Your task to perform on an android device: What's on my calendar tomorrow? Image 0: 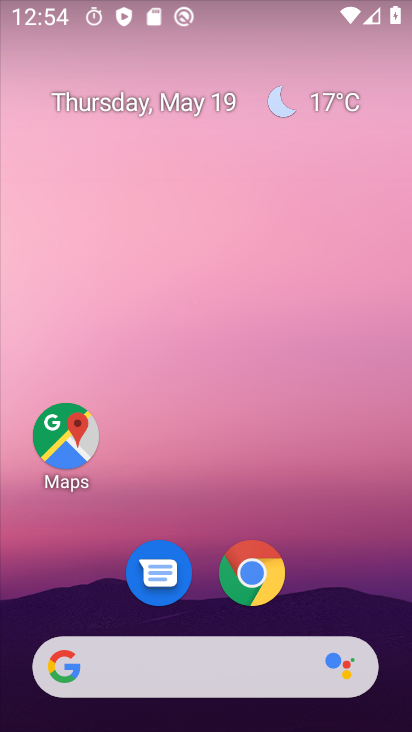
Step 0: drag from (191, 591) to (257, 113)
Your task to perform on an android device: What's on my calendar tomorrow? Image 1: 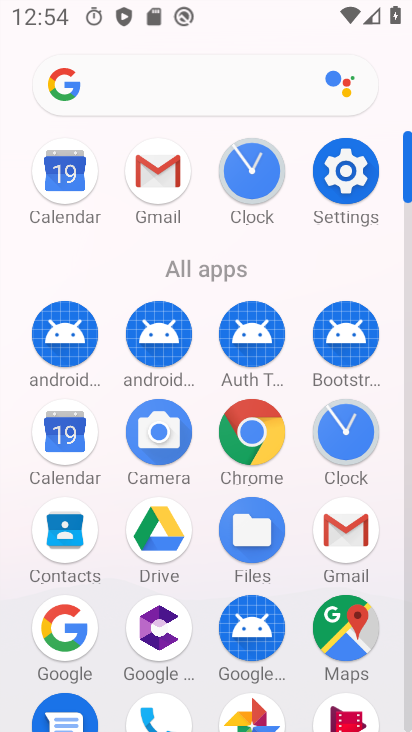
Step 1: click (58, 187)
Your task to perform on an android device: What's on my calendar tomorrow? Image 2: 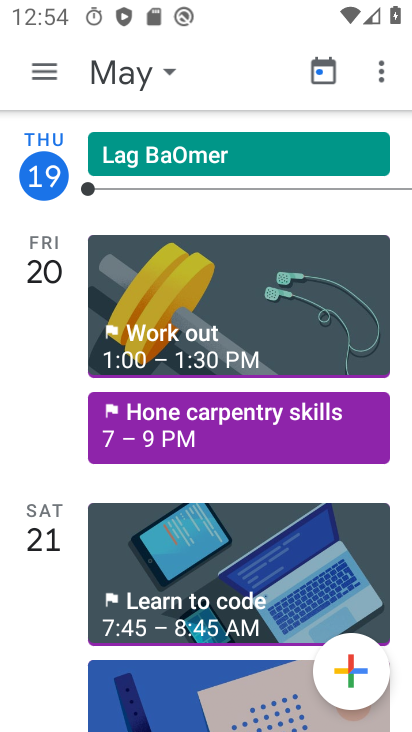
Step 2: click (156, 314)
Your task to perform on an android device: What's on my calendar tomorrow? Image 3: 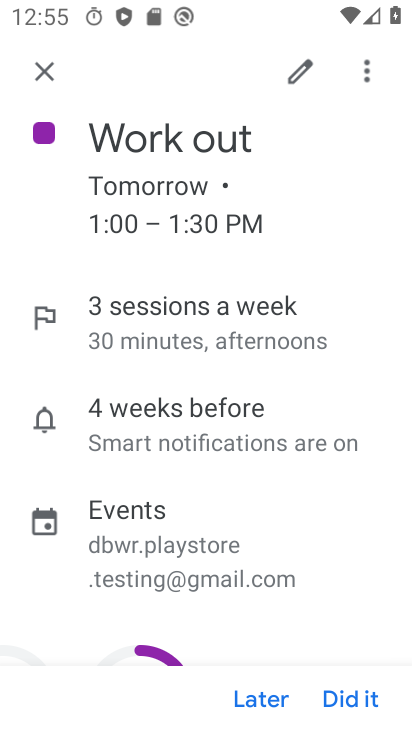
Step 3: click (241, 701)
Your task to perform on an android device: What's on my calendar tomorrow? Image 4: 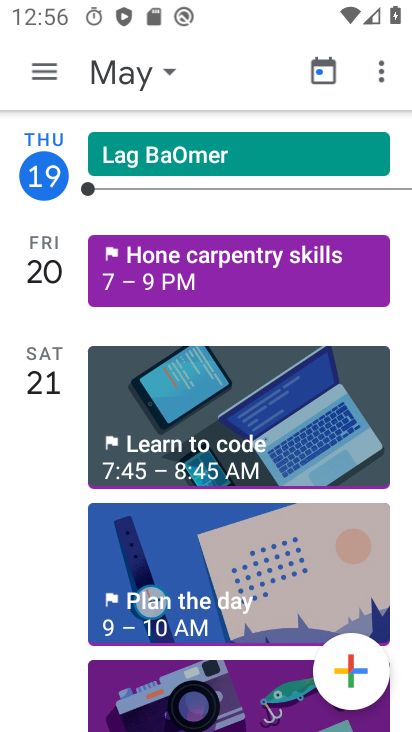
Step 4: click (181, 285)
Your task to perform on an android device: What's on my calendar tomorrow? Image 5: 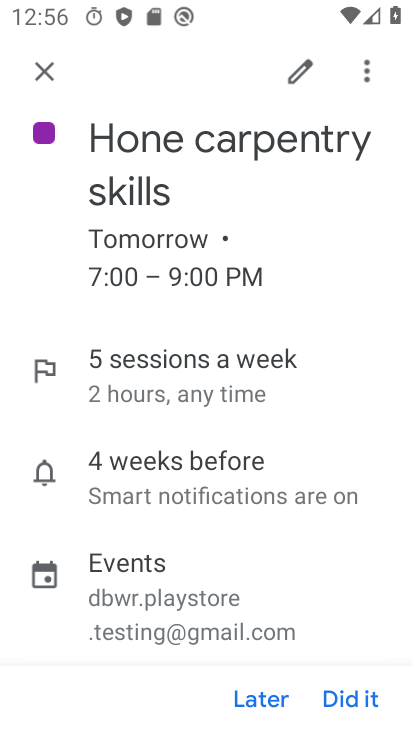
Step 5: task complete